Your task to perform on an android device: turn on improve location accuracy Image 0: 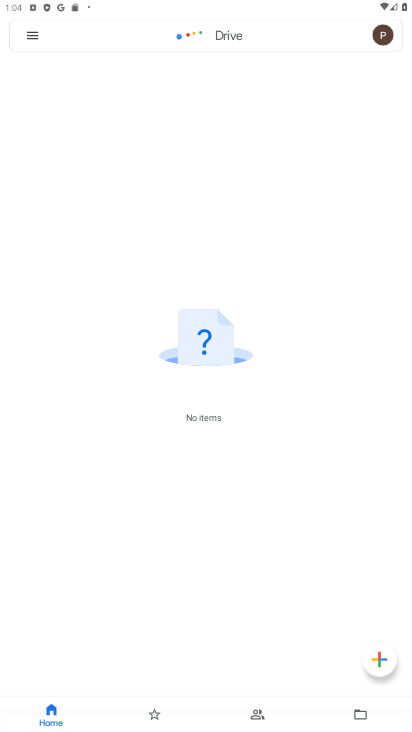
Step 0: press home button
Your task to perform on an android device: turn on improve location accuracy Image 1: 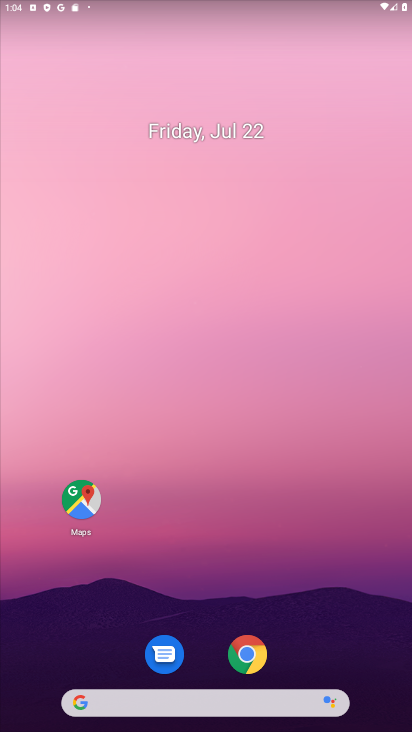
Step 1: drag from (269, 709) to (259, 161)
Your task to perform on an android device: turn on improve location accuracy Image 2: 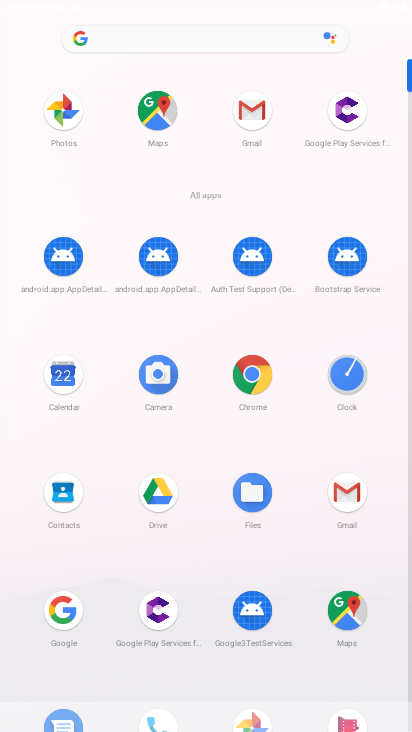
Step 2: drag from (186, 564) to (255, 261)
Your task to perform on an android device: turn on improve location accuracy Image 3: 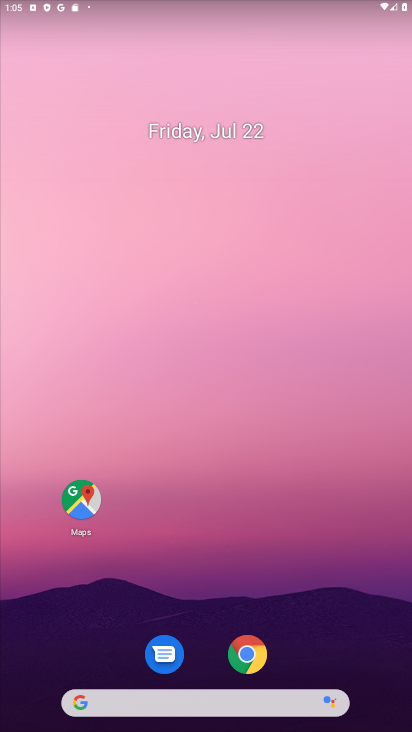
Step 3: drag from (270, 700) to (283, 4)
Your task to perform on an android device: turn on improve location accuracy Image 4: 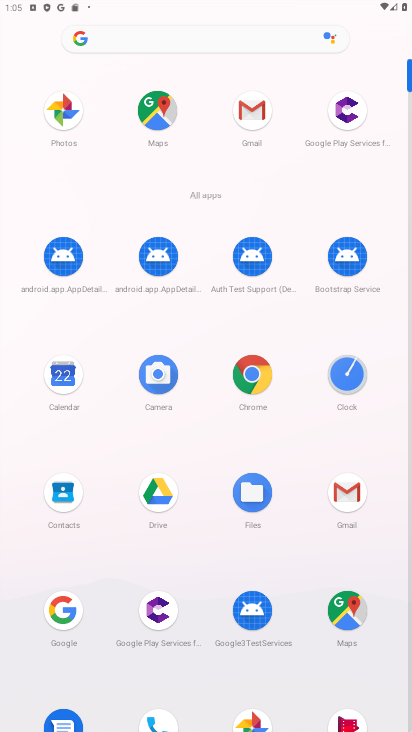
Step 4: click (97, 276)
Your task to perform on an android device: turn on improve location accuracy Image 5: 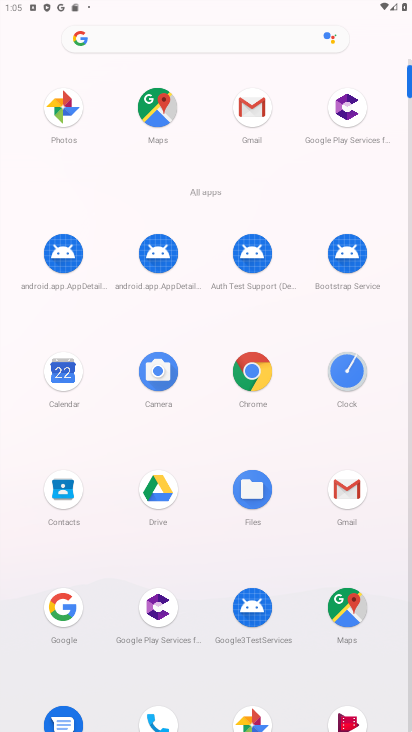
Step 5: drag from (214, 561) to (252, 129)
Your task to perform on an android device: turn on improve location accuracy Image 6: 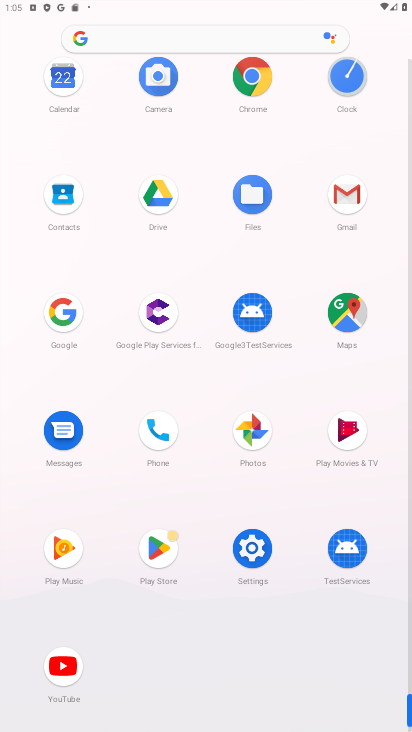
Step 6: click (259, 566)
Your task to perform on an android device: turn on improve location accuracy Image 7: 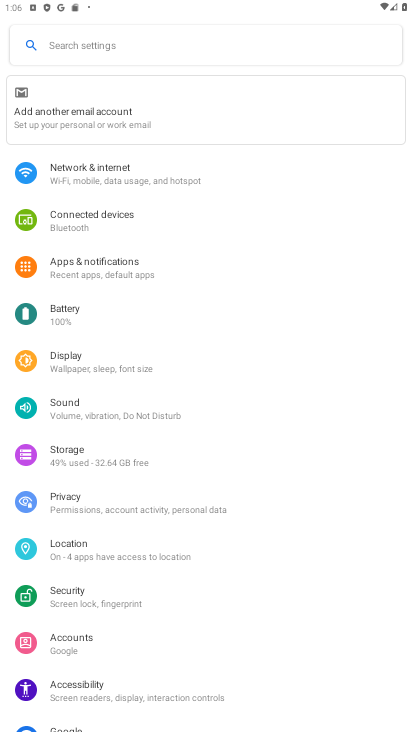
Step 7: click (98, 548)
Your task to perform on an android device: turn on improve location accuracy Image 8: 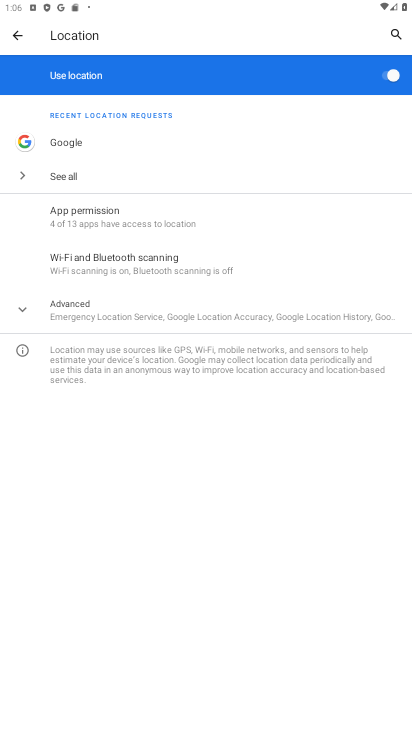
Step 8: click (34, 326)
Your task to perform on an android device: turn on improve location accuracy Image 9: 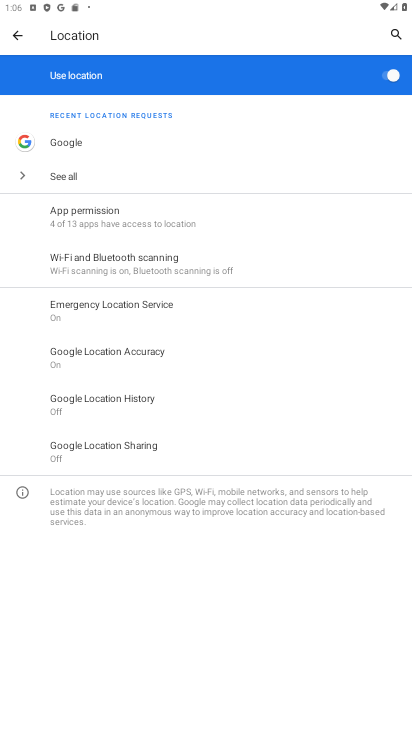
Step 9: click (130, 360)
Your task to perform on an android device: turn on improve location accuracy Image 10: 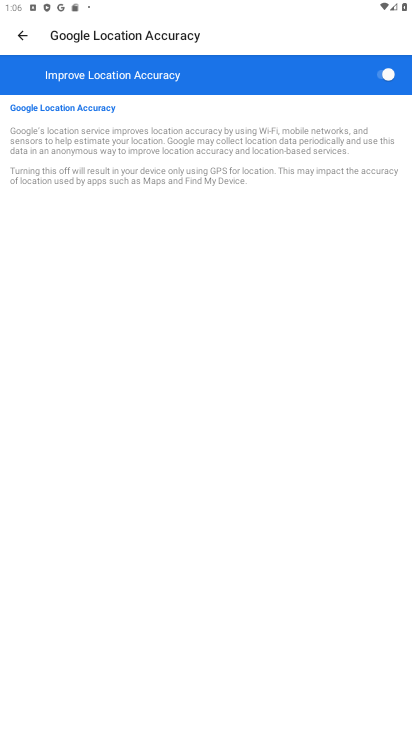
Step 10: task complete